Your task to perform on an android device: set the stopwatch Image 0: 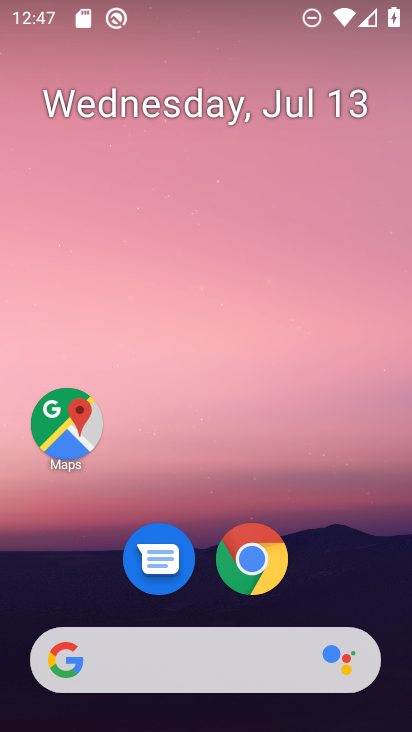
Step 0: drag from (184, 601) to (248, 181)
Your task to perform on an android device: set the stopwatch Image 1: 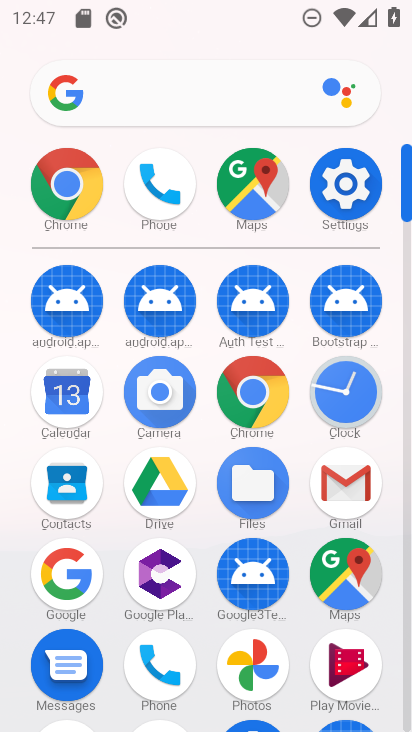
Step 1: drag from (165, 465) to (212, 276)
Your task to perform on an android device: set the stopwatch Image 2: 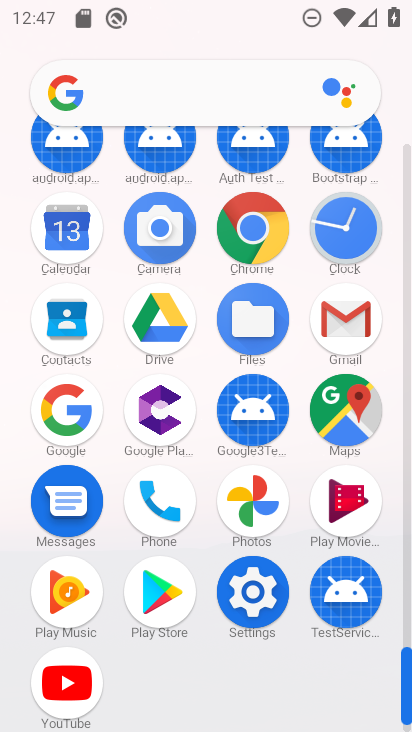
Step 2: click (352, 236)
Your task to perform on an android device: set the stopwatch Image 3: 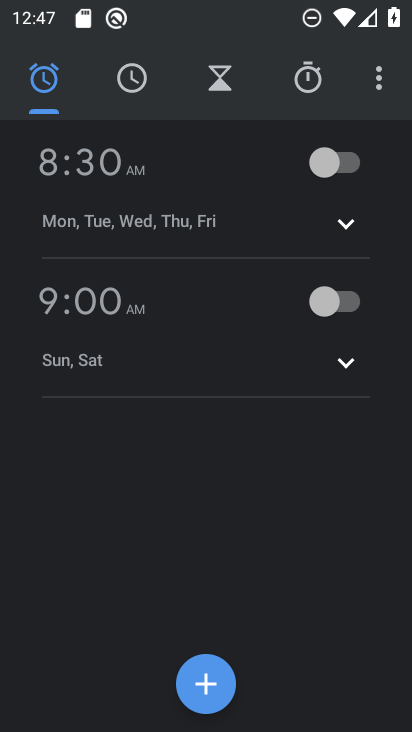
Step 3: click (308, 94)
Your task to perform on an android device: set the stopwatch Image 4: 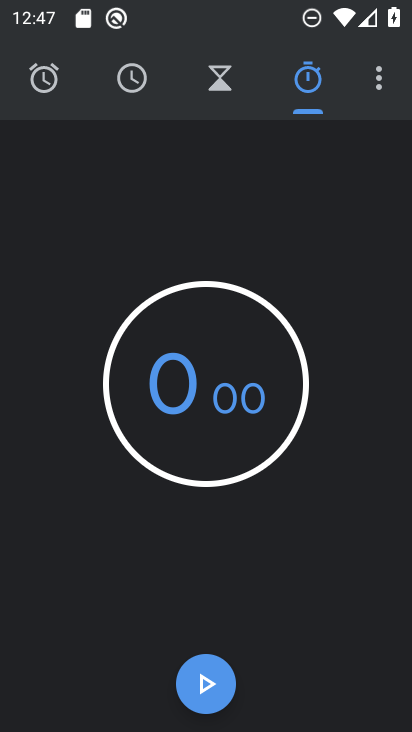
Step 4: click (199, 692)
Your task to perform on an android device: set the stopwatch Image 5: 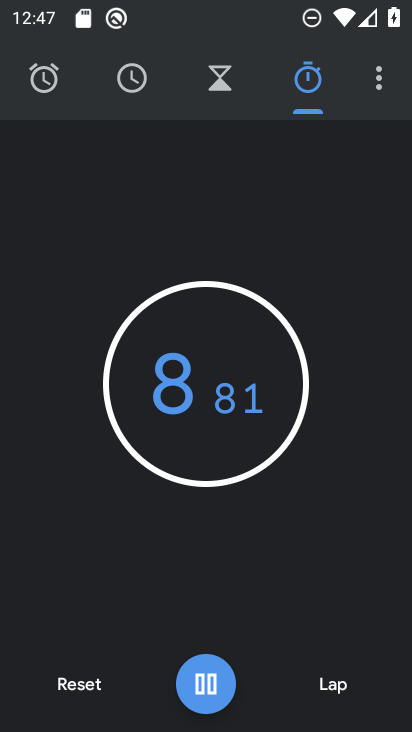
Step 5: task complete